Your task to perform on an android device: Open the stopwatch Image 0: 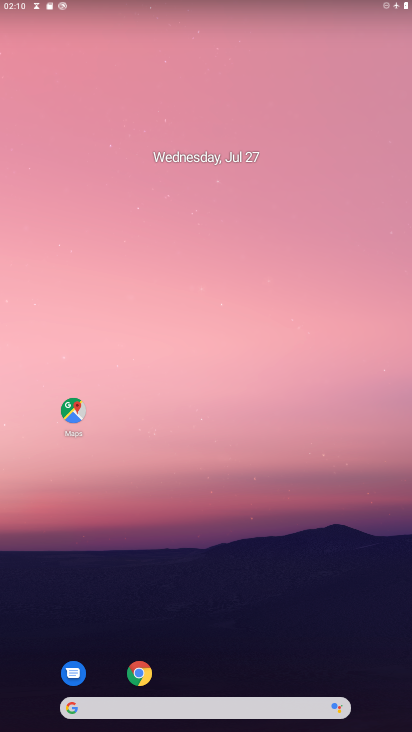
Step 0: drag from (230, 670) to (238, 164)
Your task to perform on an android device: Open the stopwatch Image 1: 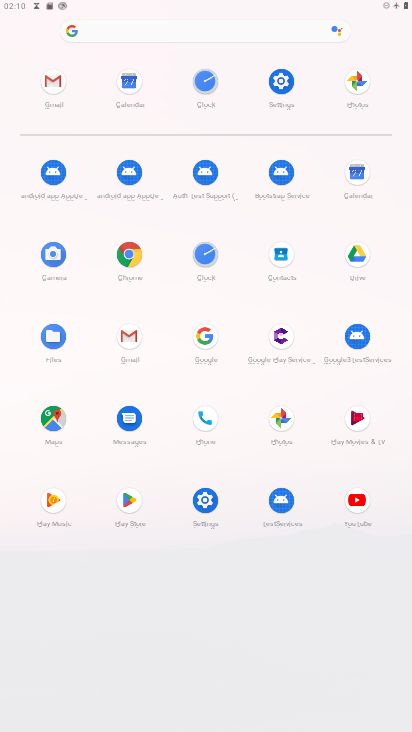
Step 1: click (210, 245)
Your task to perform on an android device: Open the stopwatch Image 2: 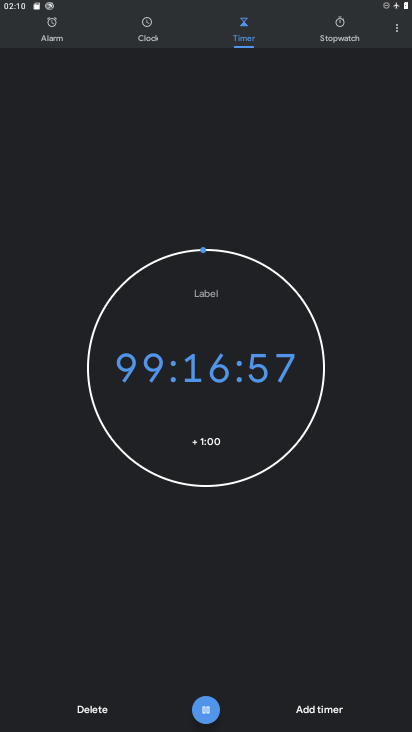
Step 2: task complete